Your task to perform on an android device: Open settings on Google Maps Image 0: 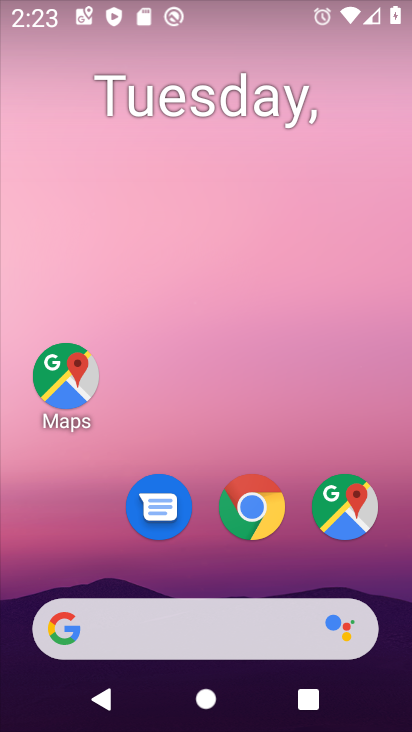
Step 0: drag from (278, 555) to (309, 129)
Your task to perform on an android device: Open settings on Google Maps Image 1: 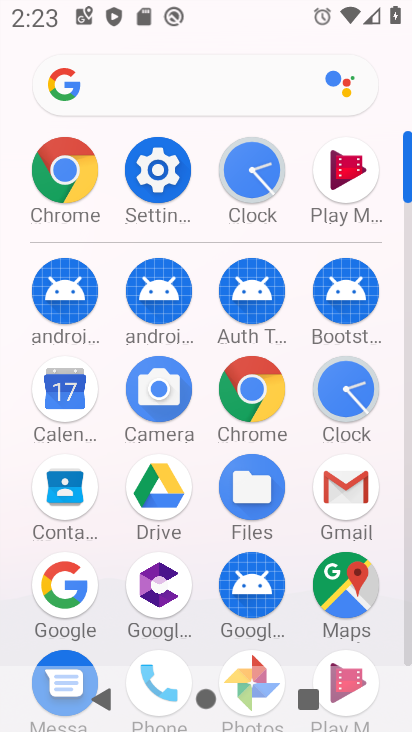
Step 1: click (329, 575)
Your task to perform on an android device: Open settings on Google Maps Image 2: 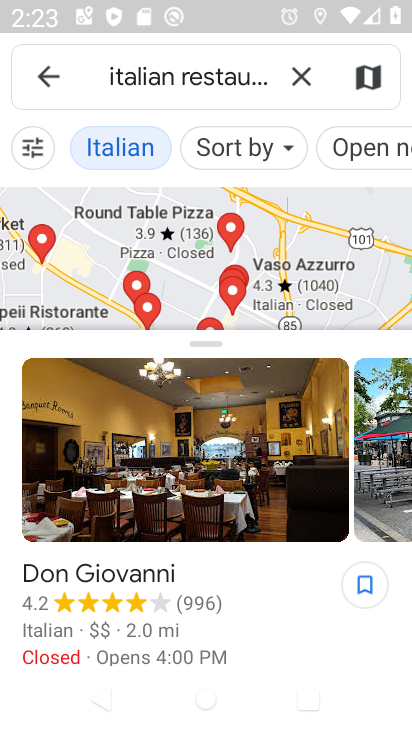
Step 2: click (295, 75)
Your task to perform on an android device: Open settings on Google Maps Image 3: 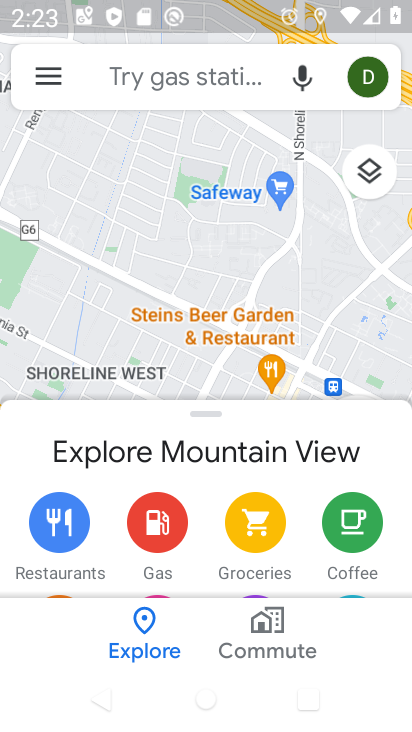
Step 3: click (34, 65)
Your task to perform on an android device: Open settings on Google Maps Image 4: 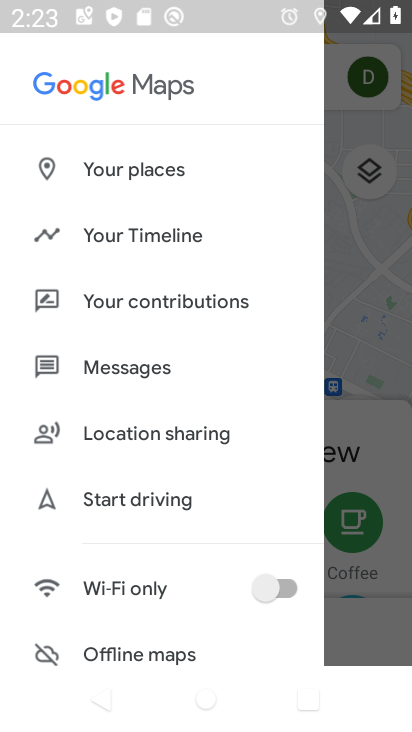
Step 4: drag from (121, 584) to (172, 254)
Your task to perform on an android device: Open settings on Google Maps Image 5: 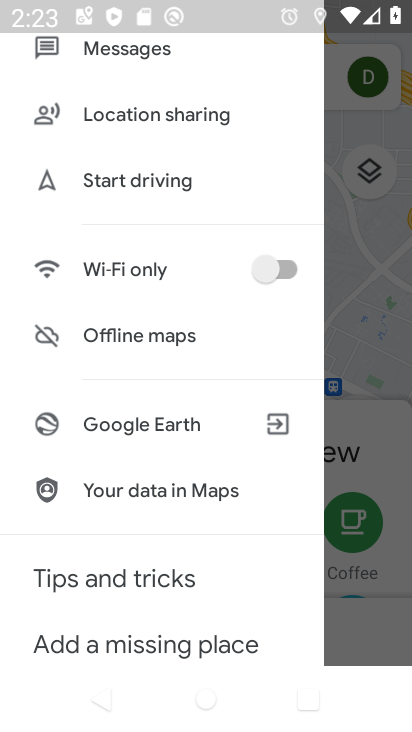
Step 5: drag from (150, 205) to (210, 146)
Your task to perform on an android device: Open settings on Google Maps Image 6: 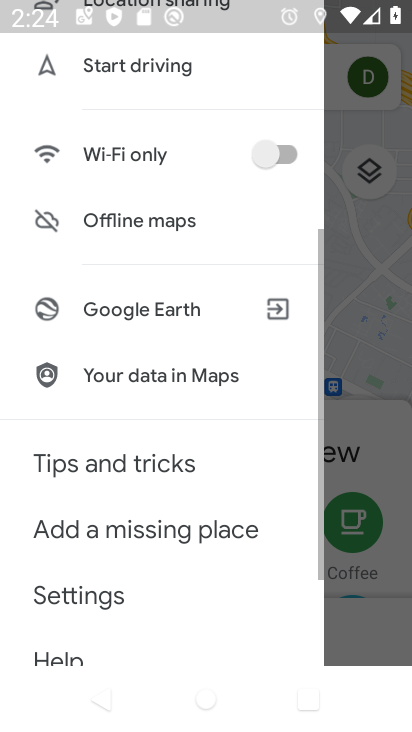
Step 6: drag from (116, 557) to (170, 365)
Your task to perform on an android device: Open settings on Google Maps Image 7: 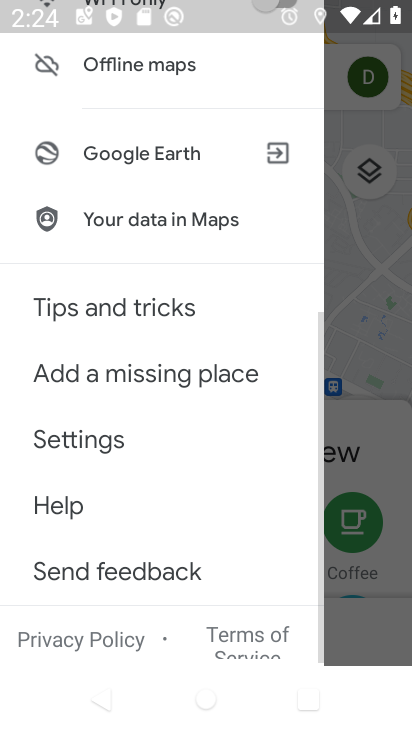
Step 7: click (90, 476)
Your task to perform on an android device: Open settings on Google Maps Image 8: 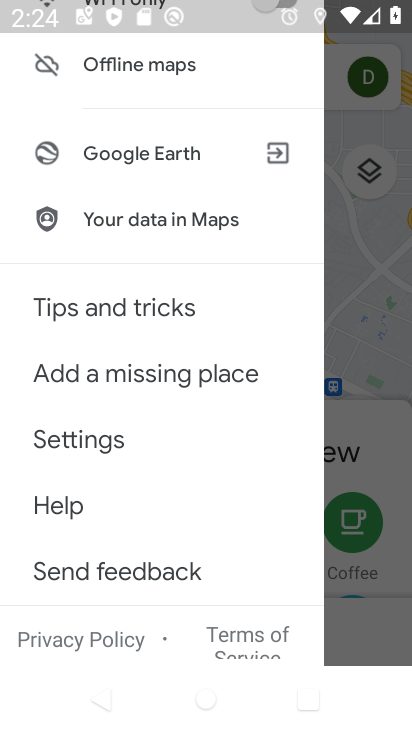
Step 8: click (89, 458)
Your task to perform on an android device: Open settings on Google Maps Image 9: 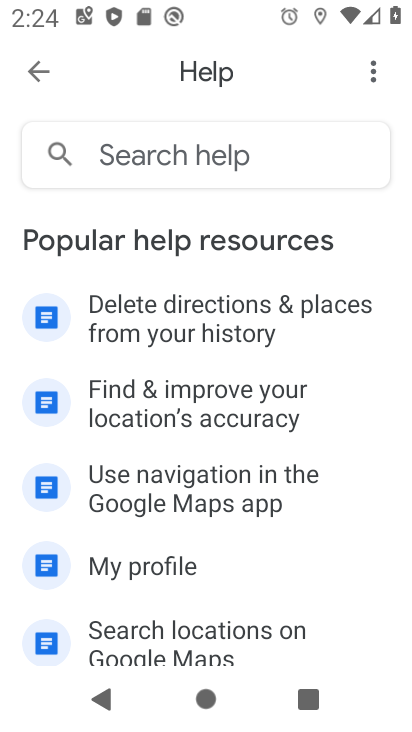
Step 9: task complete